Your task to perform on an android device: install app "AliExpress" Image 0: 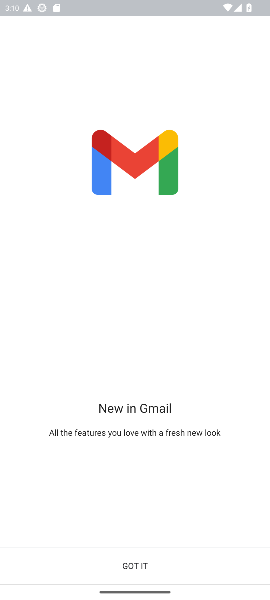
Step 0: press home button
Your task to perform on an android device: install app "AliExpress" Image 1: 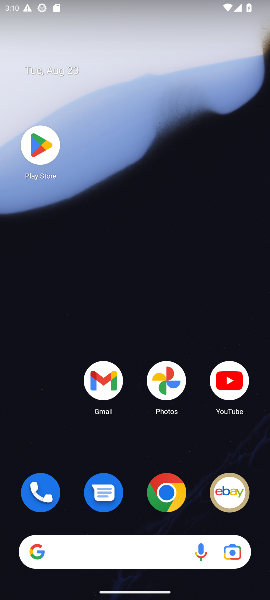
Step 1: click (39, 150)
Your task to perform on an android device: install app "AliExpress" Image 2: 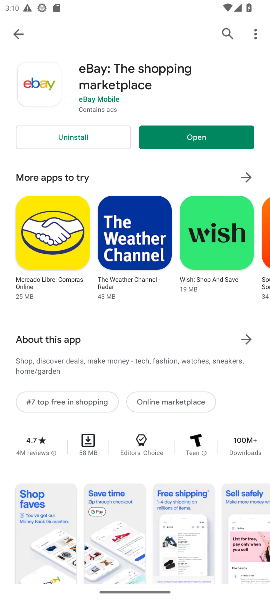
Step 2: click (228, 35)
Your task to perform on an android device: install app "AliExpress" Image 3: 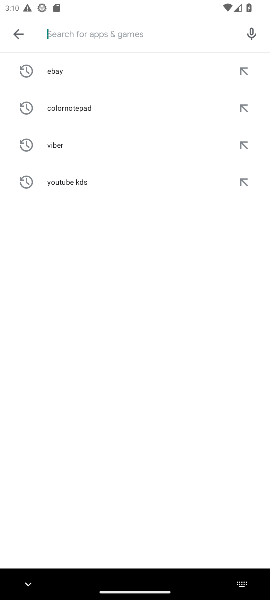
Step 3: type "aliexpress"
Your task to perform on an android device: install app "AliExpress" Image 4: 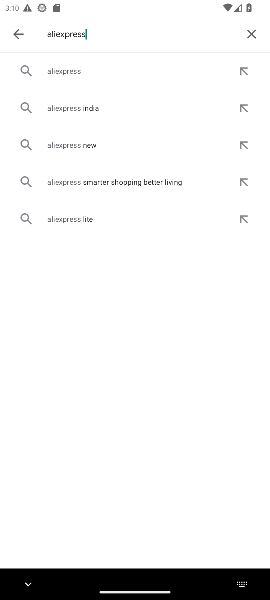
Step 4: click (118, 64)
Your task to perform on an android device: install app "AliExpress" Image 5: 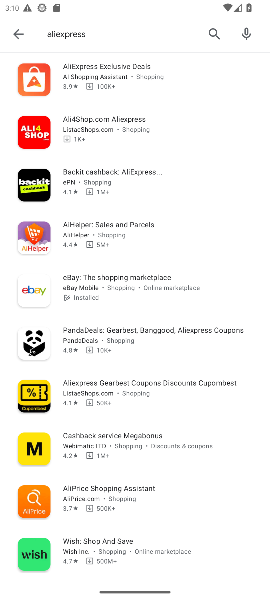
Step 5: click (155, 70)
Your task to perform on an android device: install app "AliExpress" Image 6: 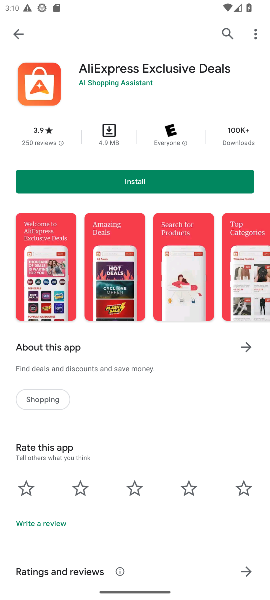
Step 6: click (155, 177)
Your task to perform on an android device: install app "AliExpress" Image 7: 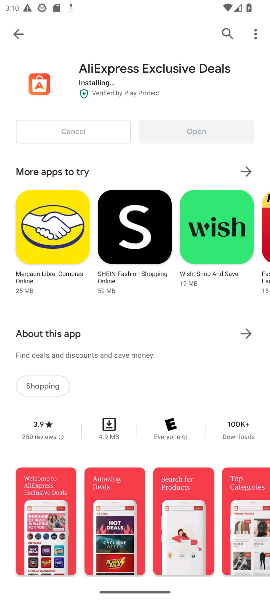
Step 7: task complete